Your task to perform on an android device: turn notification dots off Image 0: 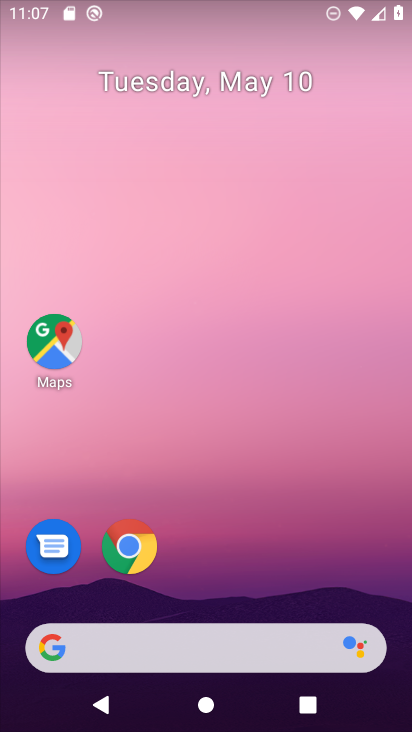
Step 0: drag from (316, 572) to (342, 42)
Your task to perform on an android device: turn notification dots off Image 1: 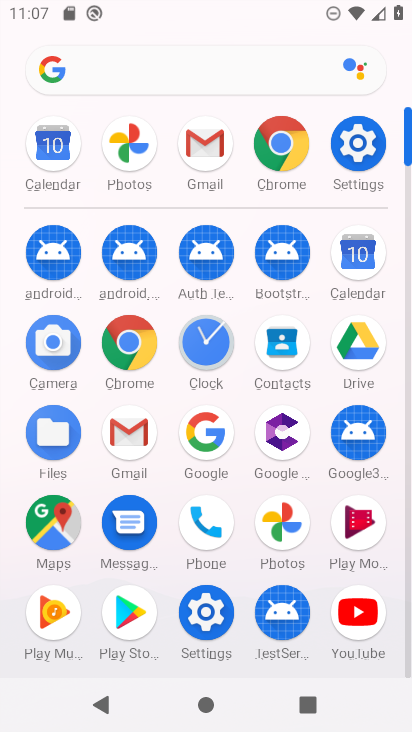
Step 1: click (352, 140)
Your task to perform on an android device: turn notification dots off Image 2: 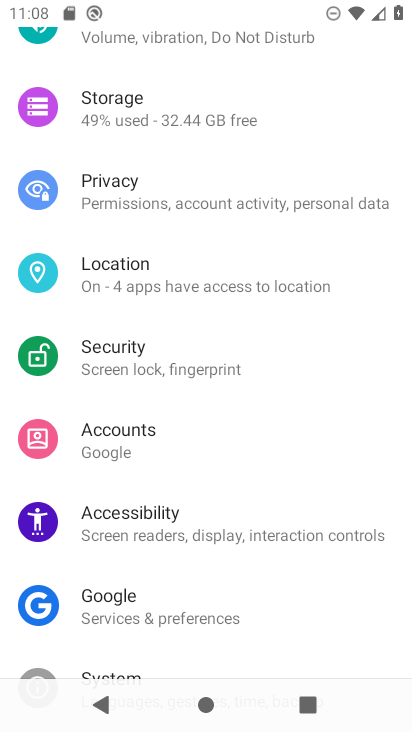
Step 2: drag from (299, 603) to (407, 700)
Your task to perform on an android device: turn notification dots off Image 3: 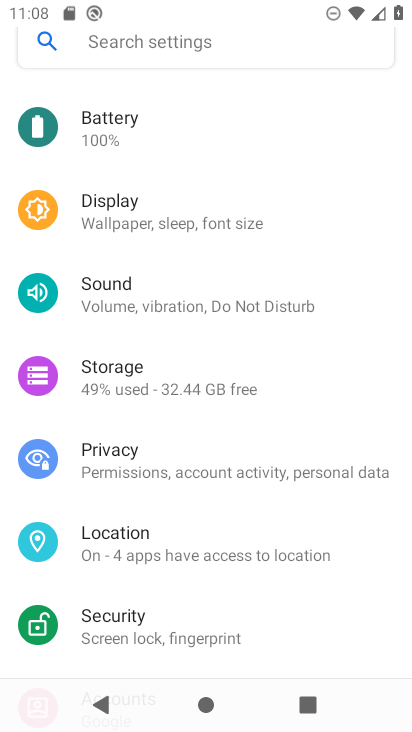
Step 3: drag from (290, 255) to (329, 664)
Your task to perform on an android device: turn notification dots off Image 4: 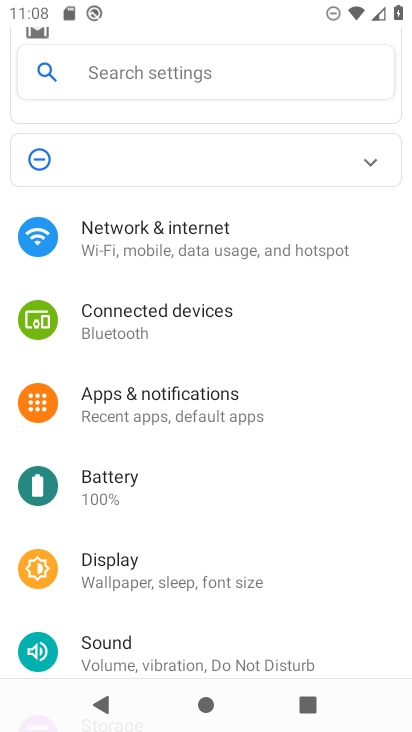
Step 4: click (176, 396)
Your task to perform on an android device: turn notification dots off Image 5: 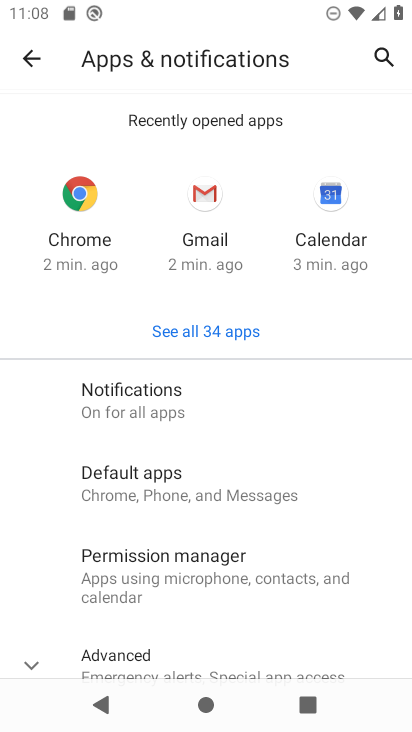
Step 5: click (160, 404)
Your task to perform on an android device: turn notification dots off Image 6: 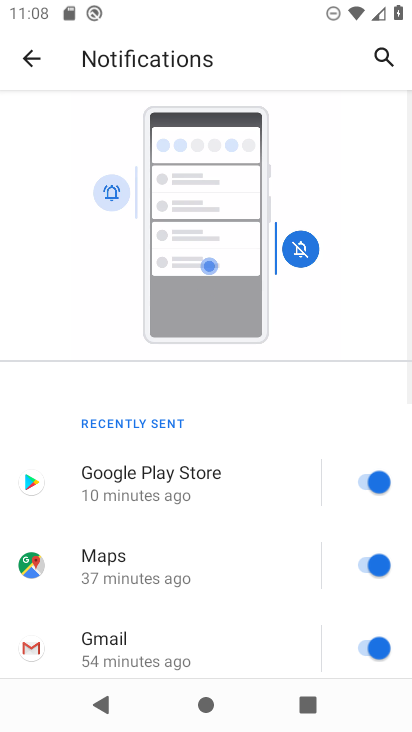
Step 6: drag from (282, 581) to (307, 154)
Your task to perform on an android device: turn notification dots off Image 7: 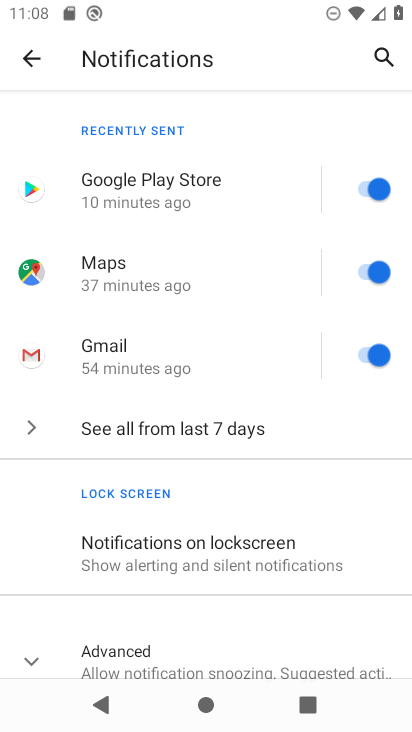
Step 7: drag from (203, 593) to (288, 246)
Your task to perform on an android device: turn notification dots off Image 8: 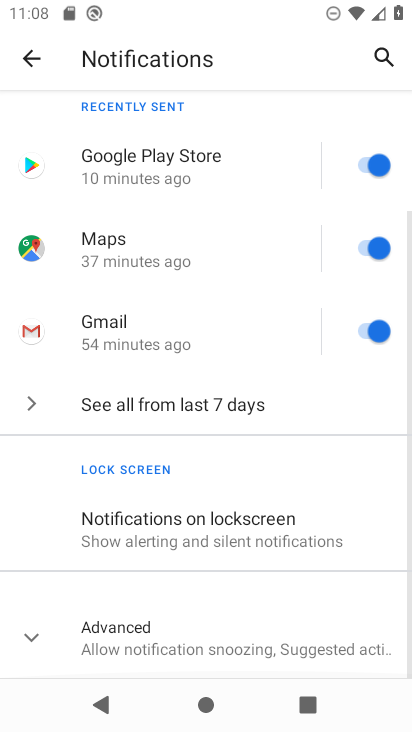
Step 8: click (183, 624)
Your task to perform on an android device: turn notification dots off Image 9: 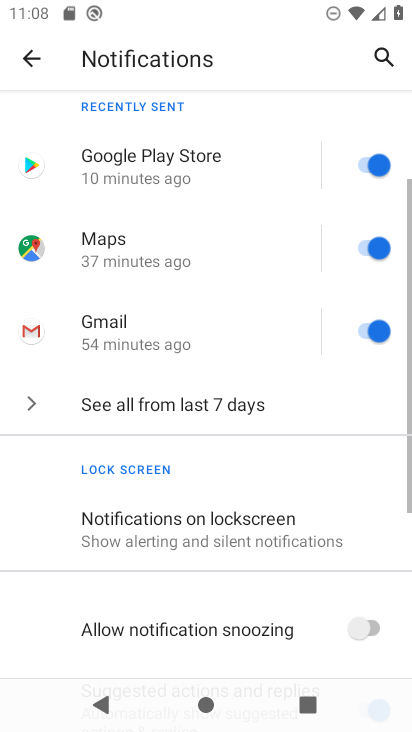
Step 9: drag from (284, 607) to (336, 234)
Your task to perform on an android device: turn notification dots off Image 10: 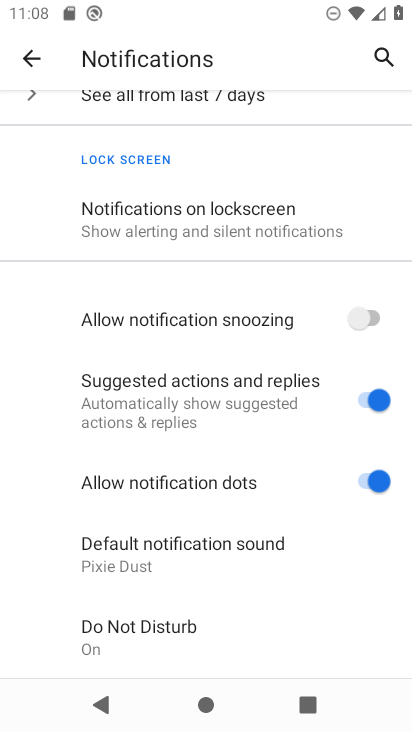
Step 10: click (365, 480)
Your task to perform on an android device: turn notification dots off Image 11: 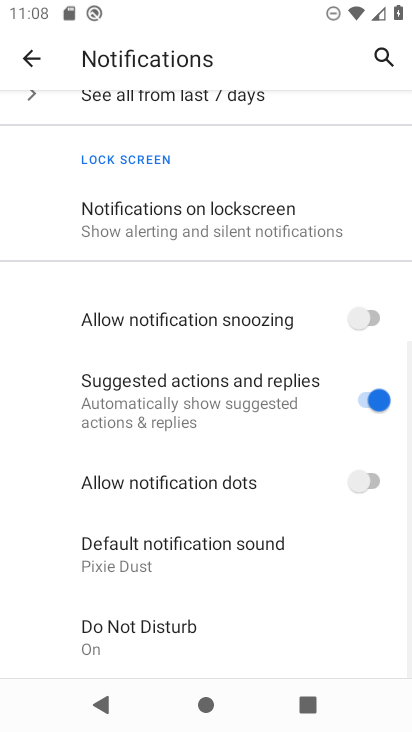
Step 11: task complete